Your task to perform on an android device: change the clock style Image 0: 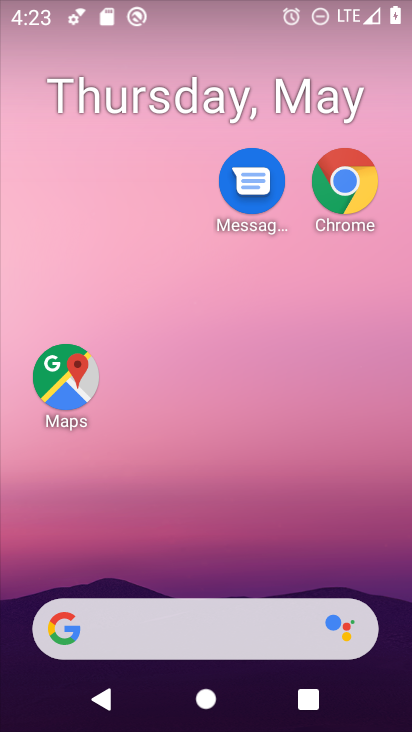
Step 0: drag from (314, 594) to (340, 49)
Your task to perform on an android device: change the clock style Image 1: 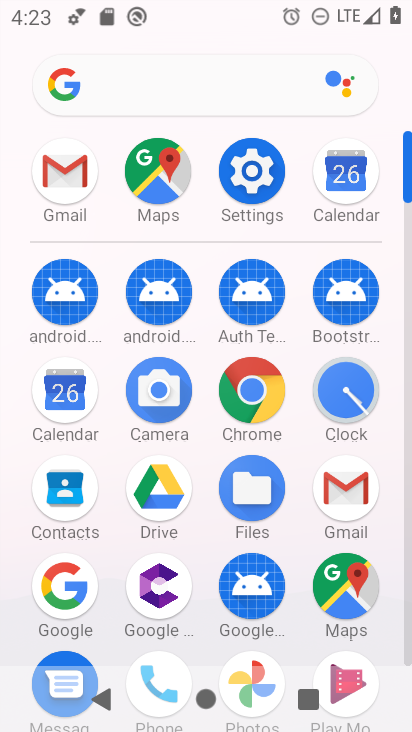
Step 1: click (359, 390)
Your task to perform on an android device: change the clock style Image 2: 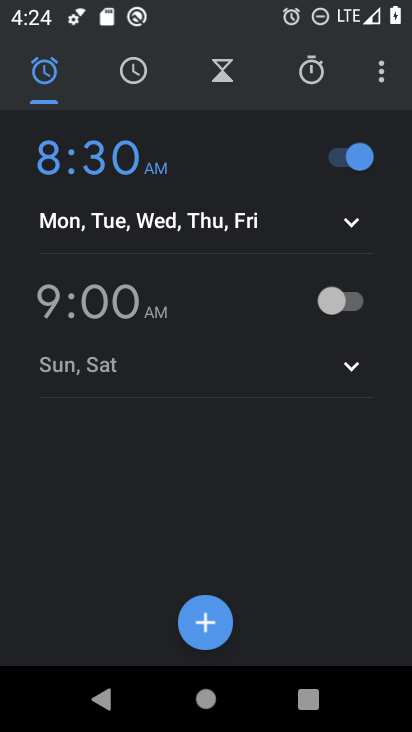
Step 2: drag from (376, 65) to (263, 143)
Your task to perform on an android device: change the clock style Image 3: 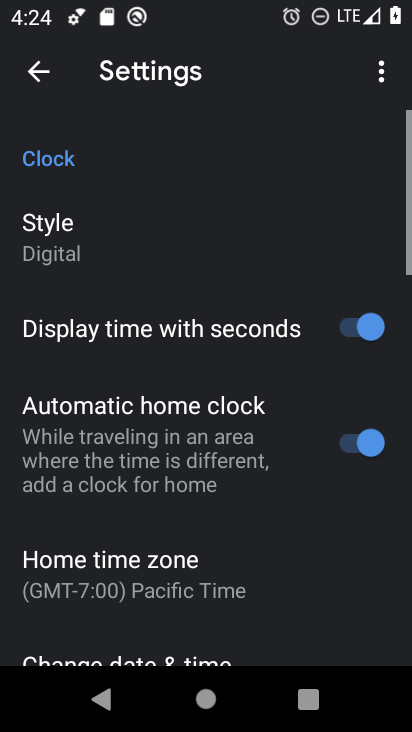
Step 3: click (205, 246)
Your task to perform on an android device: change the clock style Image 4: 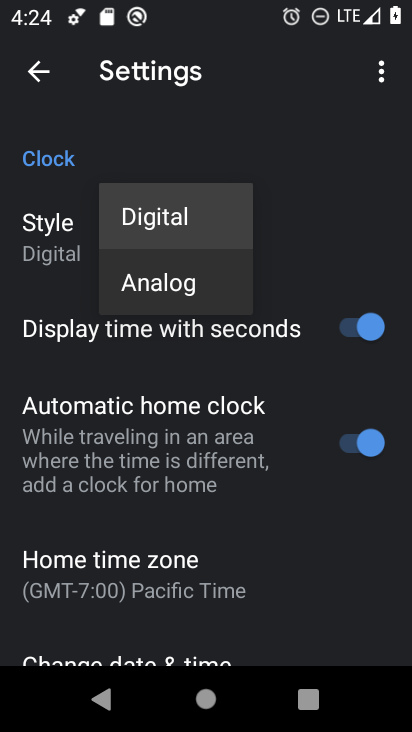
Step 4: click (170, 283)
Your task to perform on an android device: change the clock style Image 5: 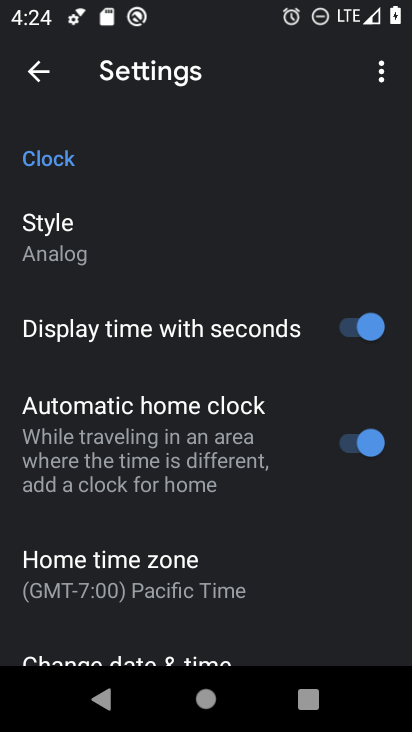
Step 5: task complete